Your task to perform on an android device: Open the calendar app, open the side menu, and click the "Day" option Image 0: 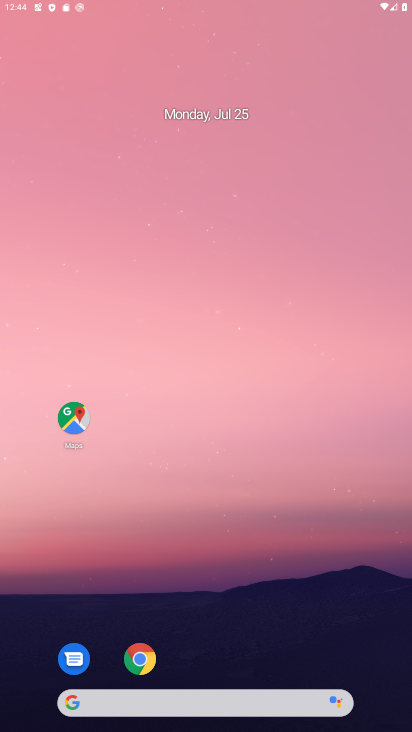
Step 0: drag from (299, 541) to (333, 3)
Your task to perform on an android device: Open the calendar app, open the side menu, and click the "Day" option Image 1: 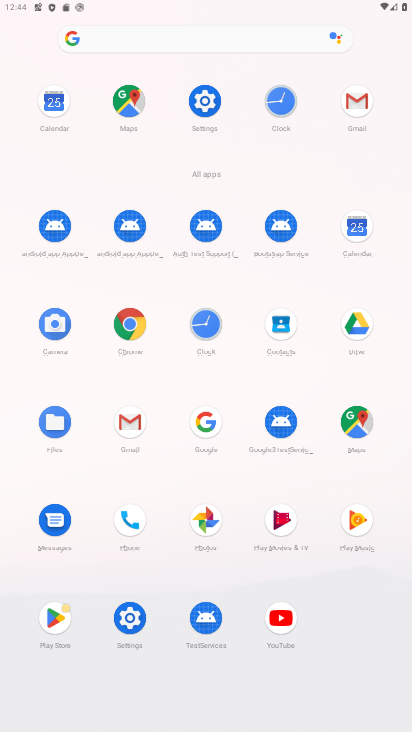
Step 1: click (51, 111)
Your task to perform on an android device: Open the calendar app, open the side menu, and click the "Day" option Image 2: 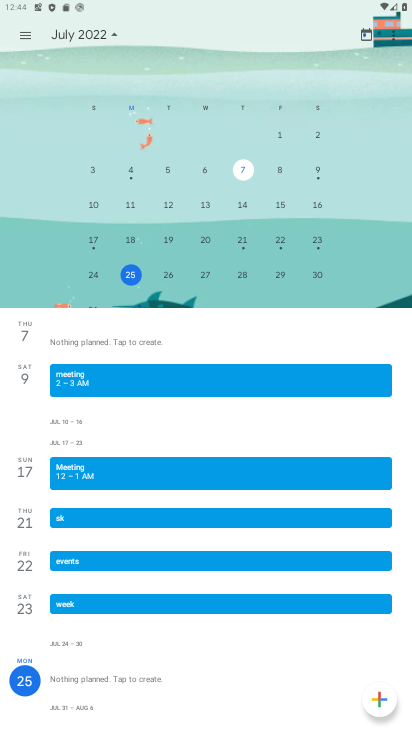
Step 2: click (30, 30)
Your task to perform on an android device: Open the calendar app, open the side menu, and click the "Day" option Image 3: 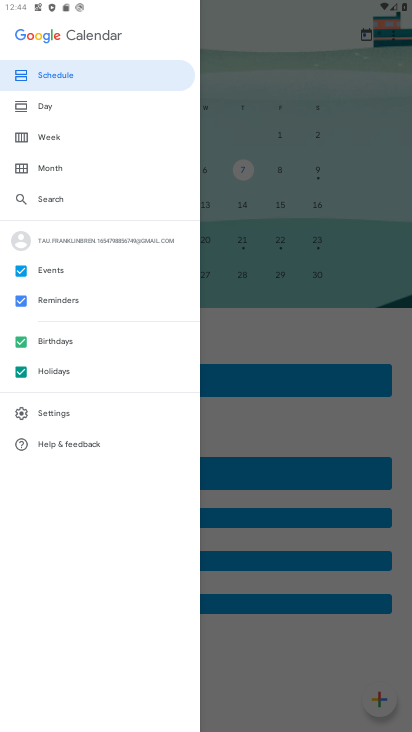
Step 3: click (40, 112)
Your task to perform on an android device: Open the calendar app, open the side menu, and click the "Day" option Image 4: 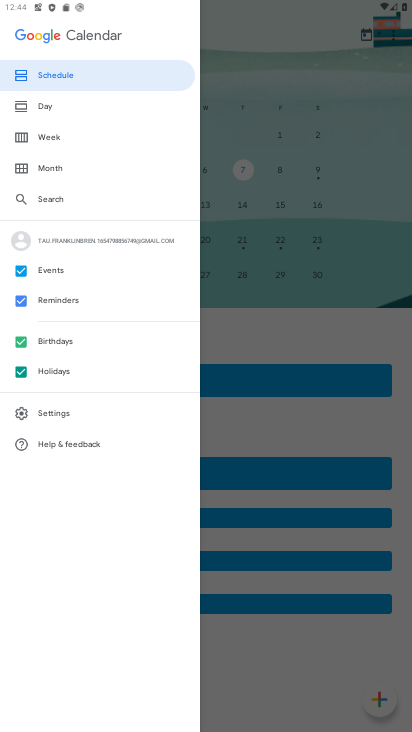
Step 4: click (40, 104)
Your task to perform on an android device: Open the calendar app, open the side menu, and click the "Day" option Image 5: 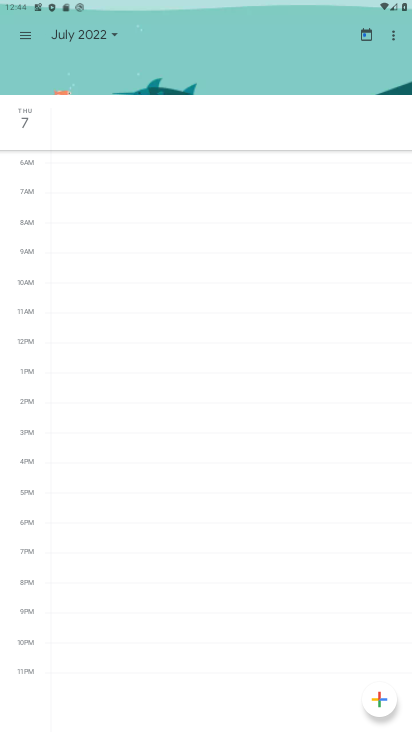
Step 5: task complete